Your task to perform on an android device: Toggle the flashlight Image 0: 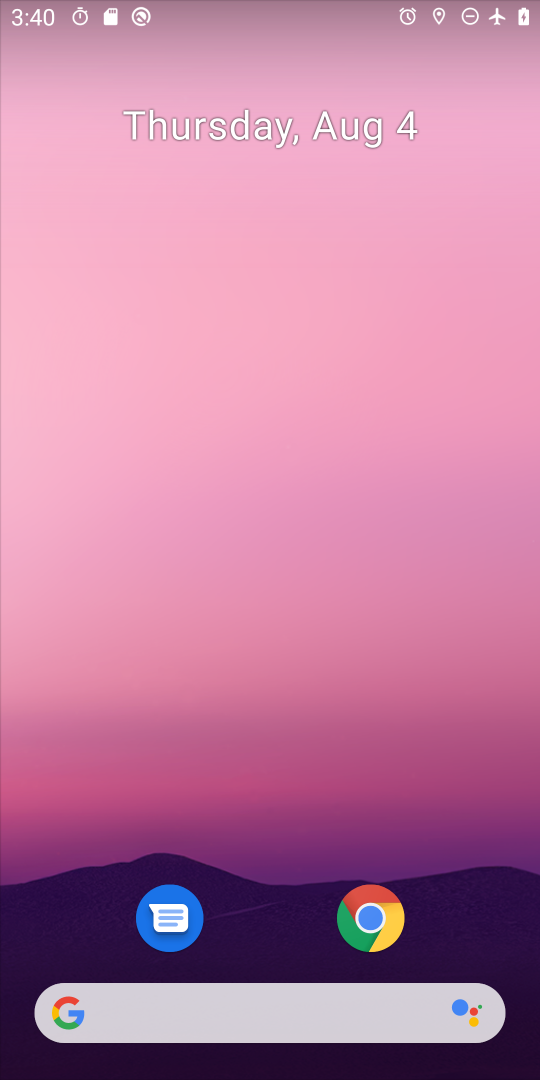
Step 0: drag from (258, 760) to (258, 398)
Your task to perform on an android device: Toggle the flashlight Image 1: 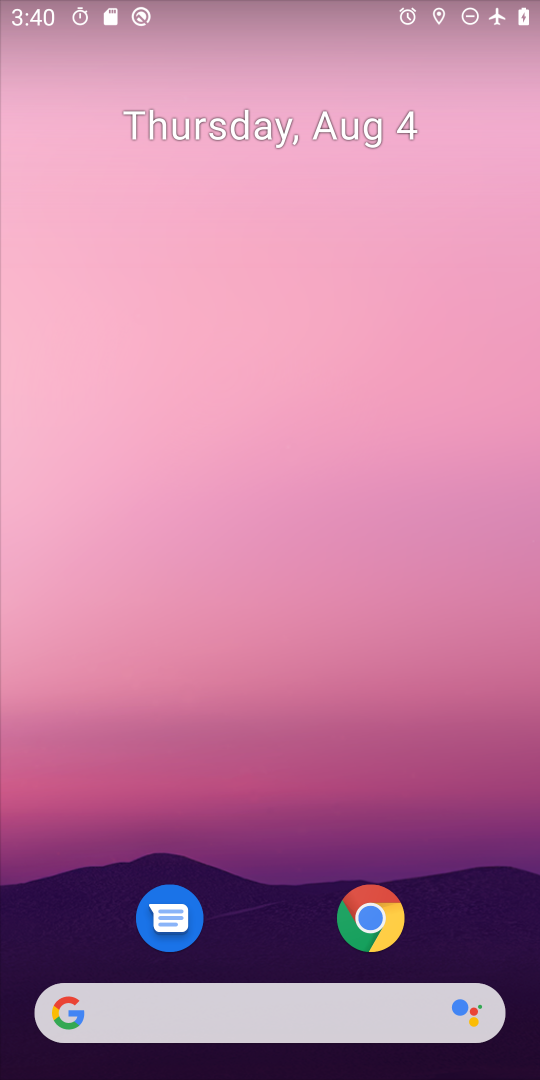
Step 1: drag from (285, 852) to (282, 333)
Your task to perform on an android device: Toggle the flashlight Image 2: 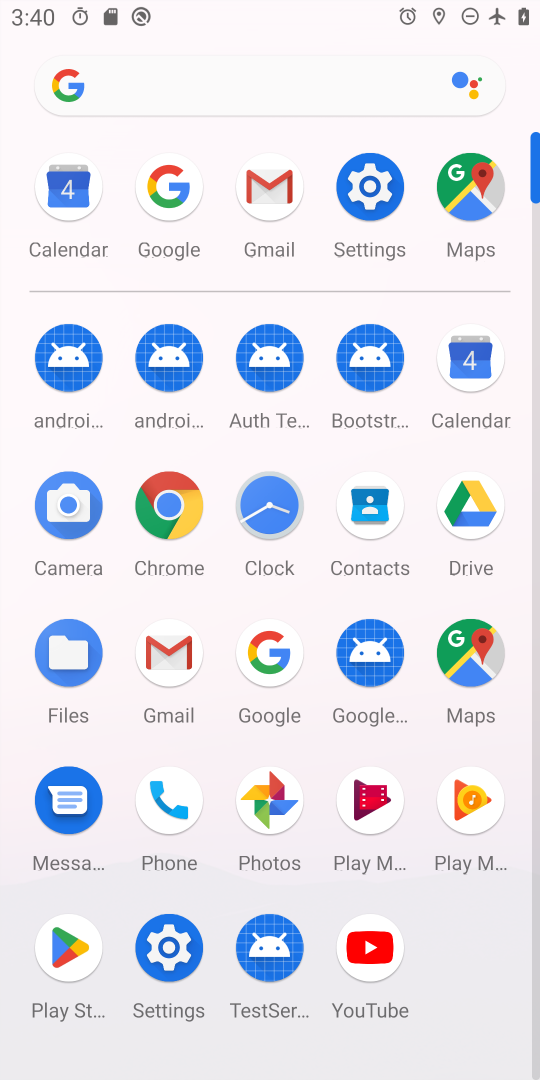
Step 2: click (350, 207)
Your task to perform on an android device: Toggle the flashlight Image 3: 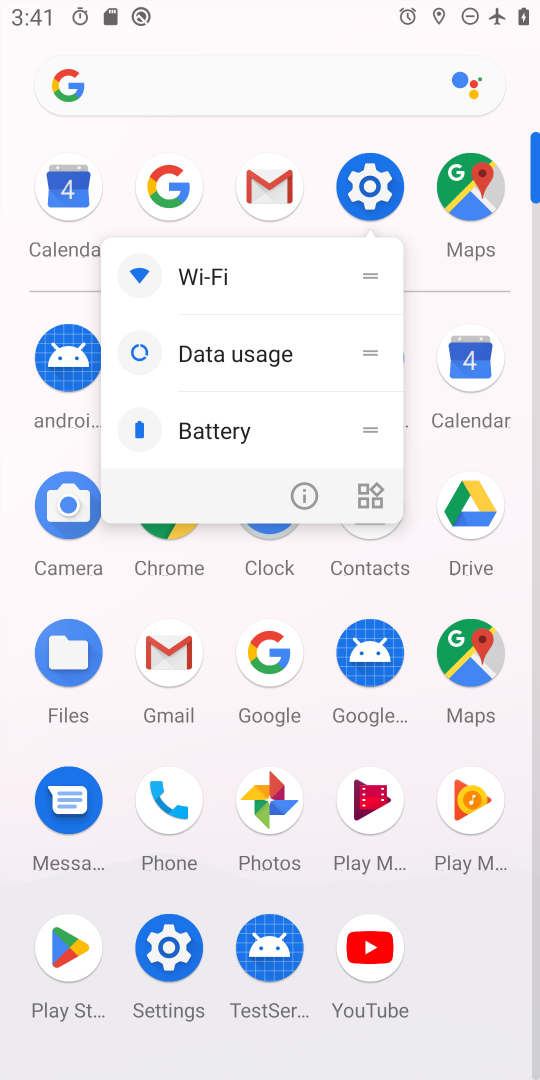
Step 3: click (350, 207)
Your task to perform on an android device: Toggle the flashlight Image 4: 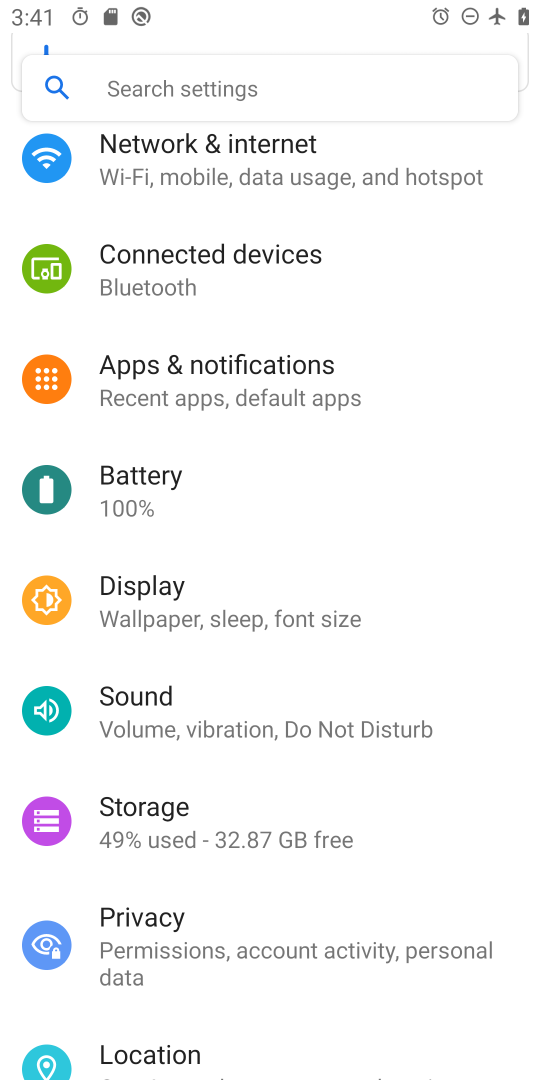
Step 4: task complete